Your task to perform on an android device: change your default location settings in chrome Image 0: 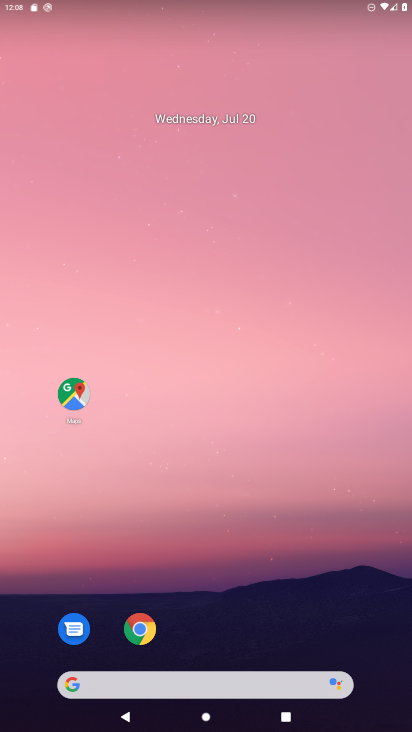
Step 0: drag from (192, 634) to (199, 21)
Your task to perform on an android device: change your default location settings in chrome Image 1: 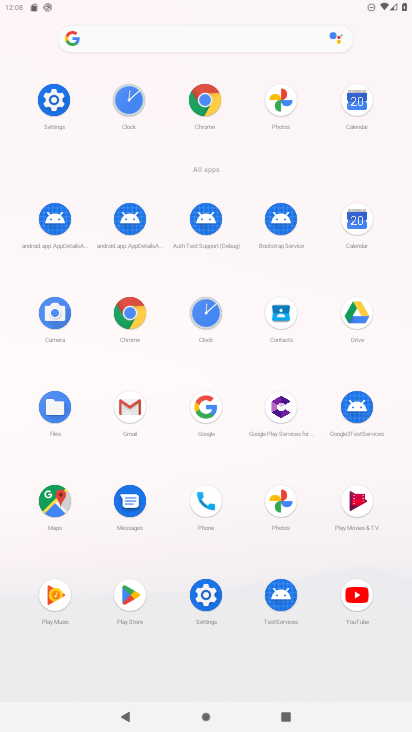
Step 1: click (124, 319)
Your task to perform on an android device: change your default location settings in chrome Image 2: 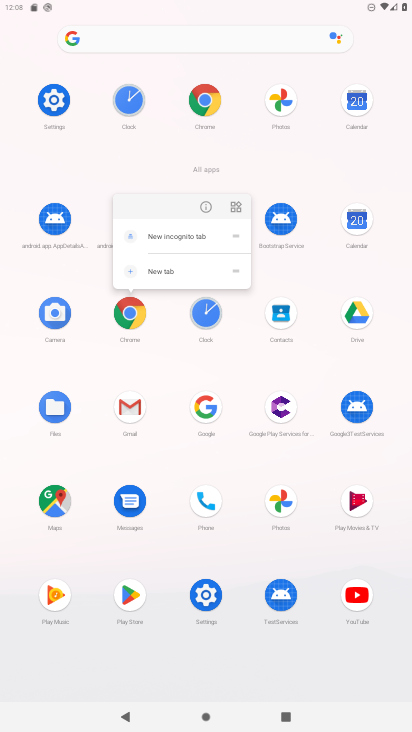
Step 2: click (195, 210)
Your task to perform on an android device: change your default location settings in chrome Image 3: 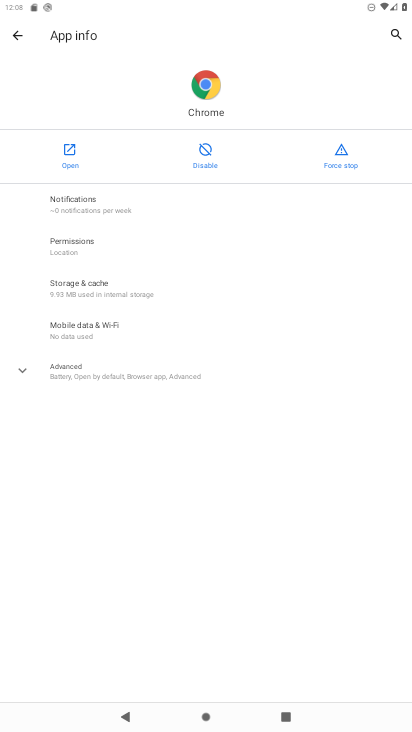
Step 3: click (73, 169)
Your task to perform on an android device: change your default location settings in chrome Image 4: 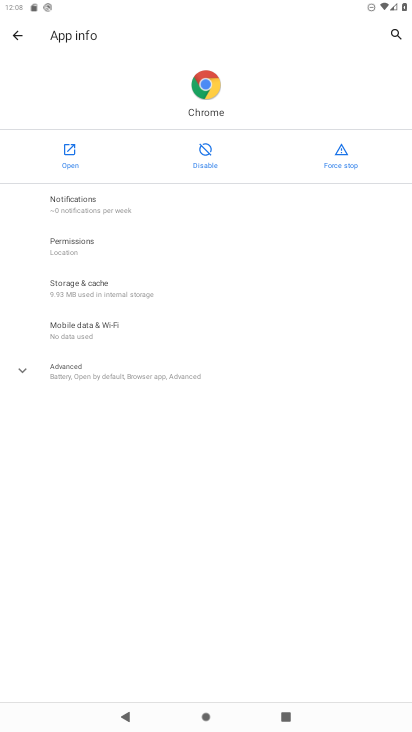
Step 4: click (70, 166)
Your task to perform on an android device: change your default location settings in chrome Image 5: 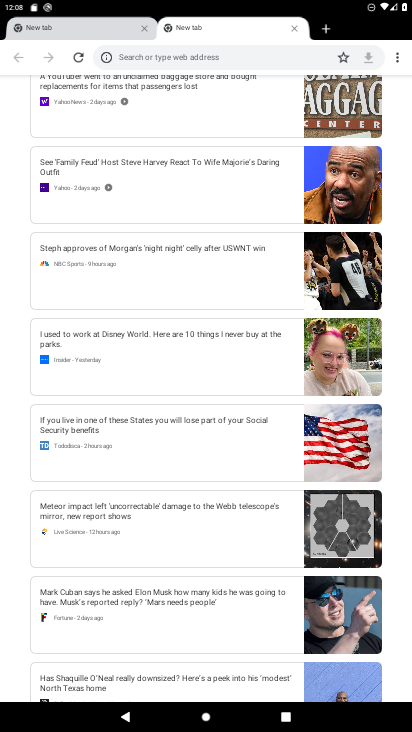
Step 5: drag from (175, 609) to (179, 309)
Your task to perform on an android device: change your default location settings in chrome Image 6: 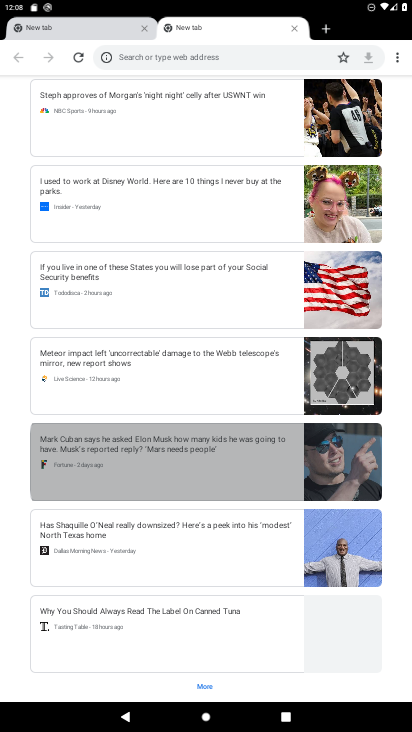
Step 6: drag from (179, 242) to (264, 702)
Your task to perform on an android device: change your default location settings in chrome Image 7: 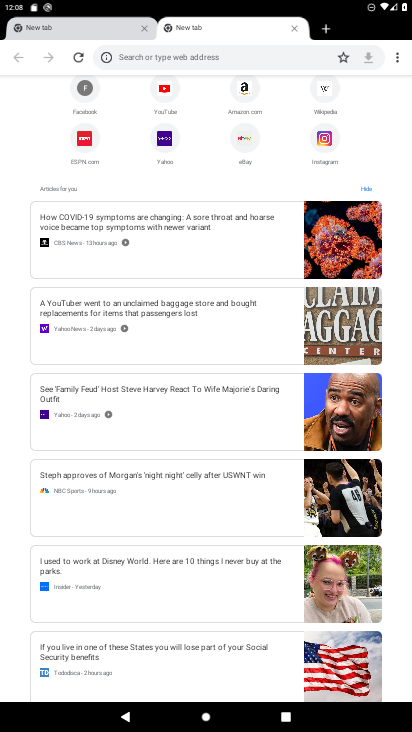
Step 7: click (399, 50)
Your task to perform on an android device: change your default location settings in chrome Image 8: 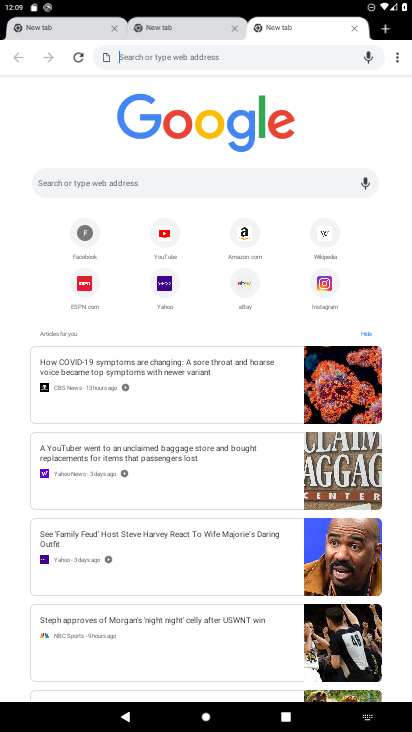
Step 8: drag from (395, 58) to (303, 266)
Your task to perform on an android device: change your default location settings in chrome Image 9: 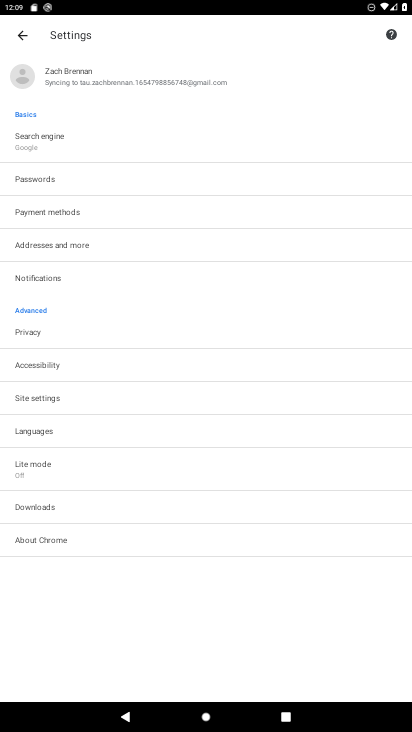
Step 9: click (54, 417)
Your task to perform on an android device: change your default location settings in chrome Image 10: 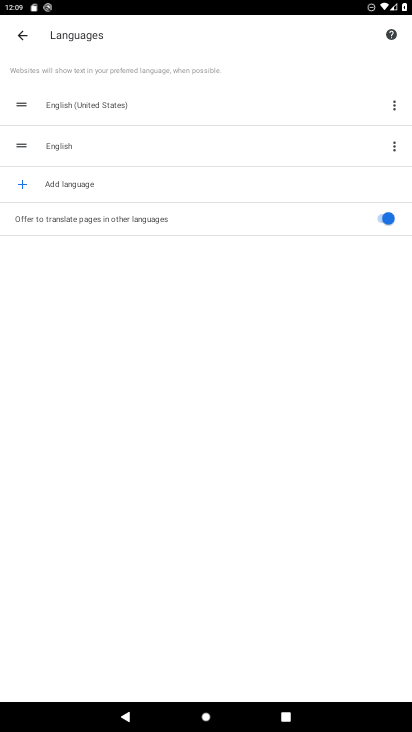
Step 10: click (19, 37)
Your task to perform on an android device: change your default location settings in chrome Image 11: 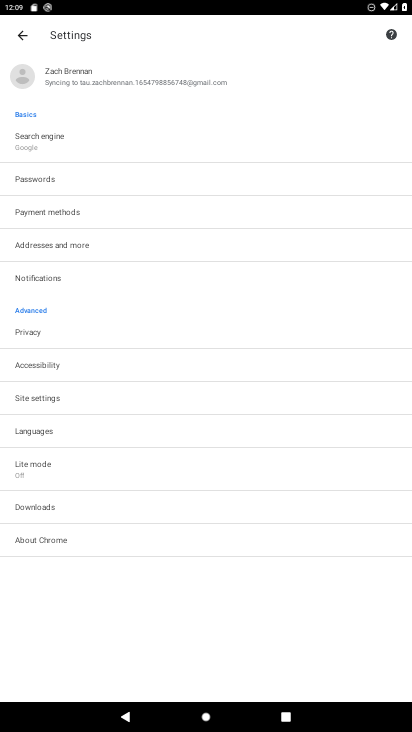
Step 11: click (24, 388)
Your task to perform on an android device: change your default location settings in chrome Image 12: 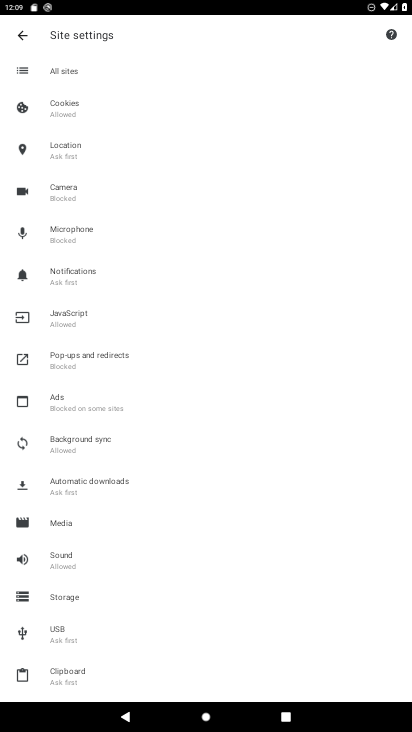
Step 12: click (66, 142)
Your task to perform on an android device: change your default location settings in chrome Image 13: 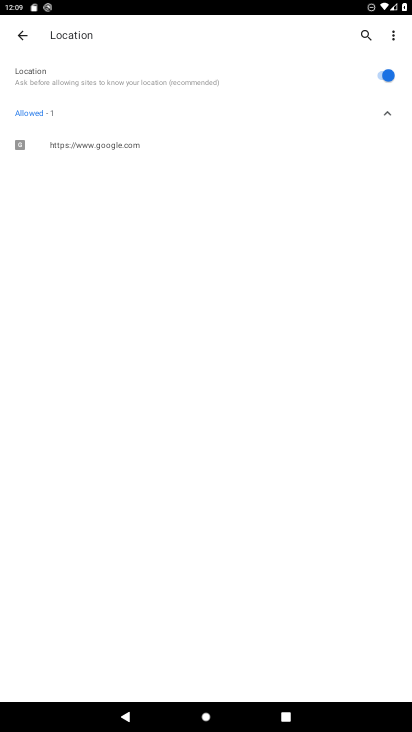
Step 13: click (376, 83)
Your task to perform on an android device: change your default location settings in chrome Image 14: 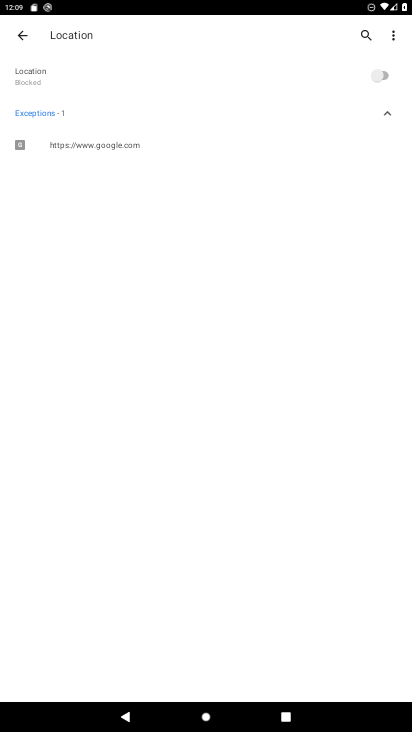
Step 14: task complete